Your task to perform on an android device: Open CNN.com Image 0: 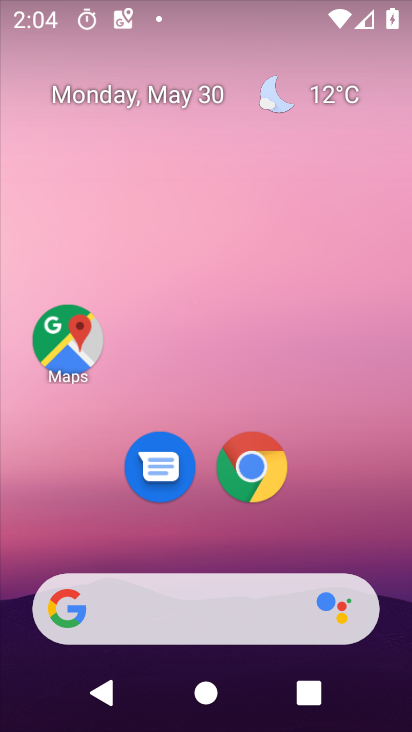
Step 0: click (253, 466)
Your task to perform on an android device: Open CNN.com Image 1: 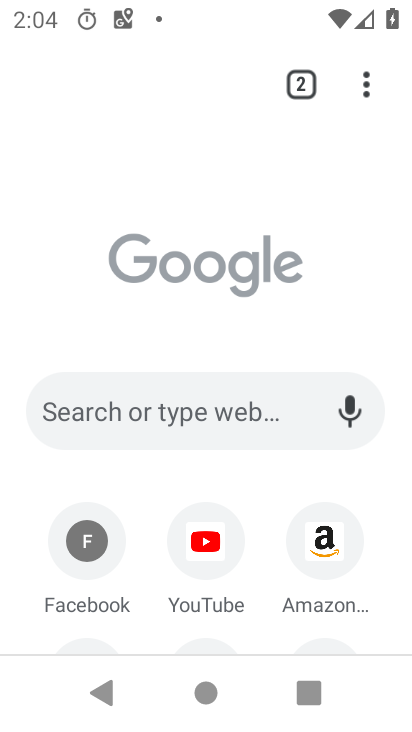
Step 1: click (220, 412)
Your task to perform on an android device: Open CNN.com Image 2: 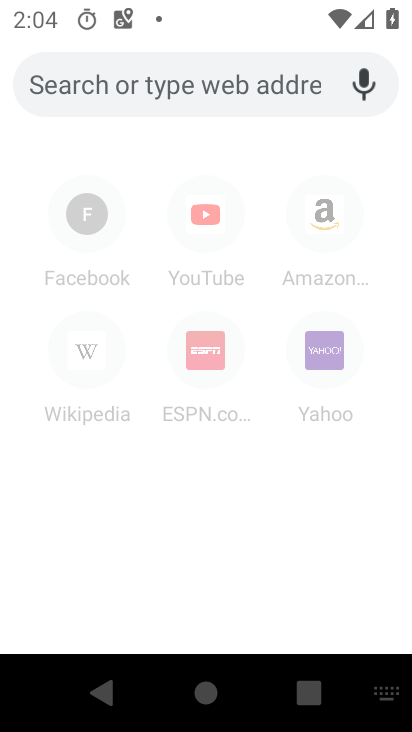
Step 2: type "CNN.com"
Your task to perform on an android device: Open CNN.com Image 3: 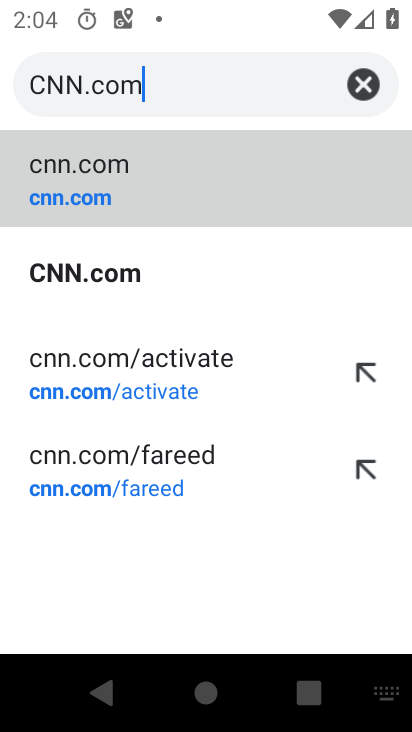
Step 3: click (105, 268)
Your task to perform on an android device: Open CNN.com Image 4: 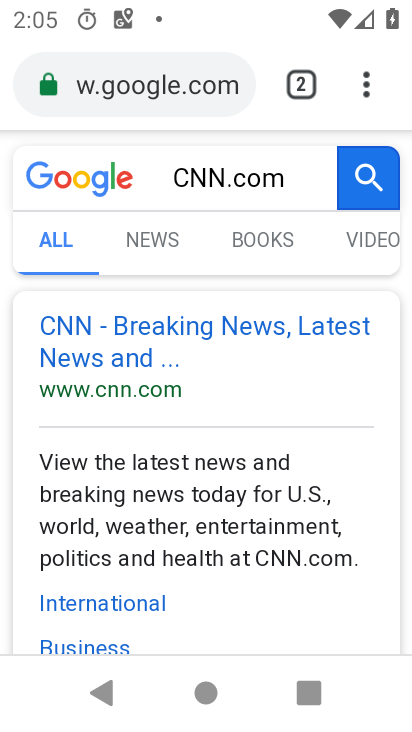
Step 4: task complete